Your task to perform on an android device: open a bookmark in the chrome app Image 0: 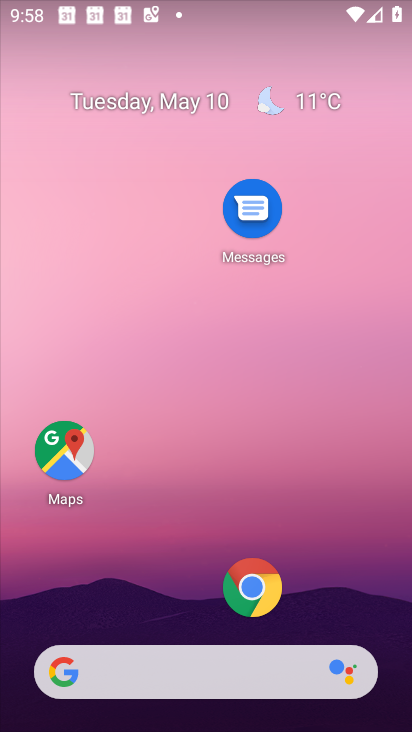
Step 0: click (255, 592)
Your task to perform on an android device: open a bookmark in the chrome app Image 1: 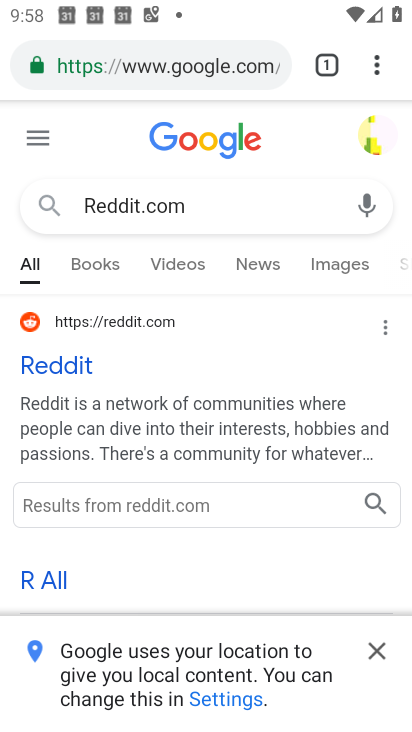
Step 1: click (385, 69)
Your task to perform on an android device: open a bookmark in the chrome app Image 2: 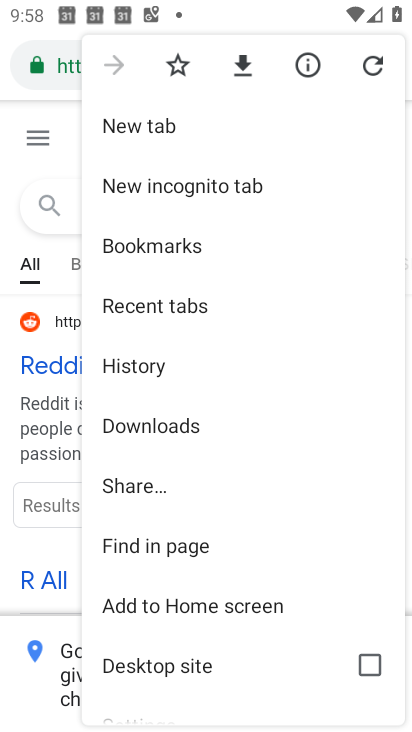
Step 2: click (169, 243)
Your task to perform on an android device: open a bookmark in the chrome app Image 3: 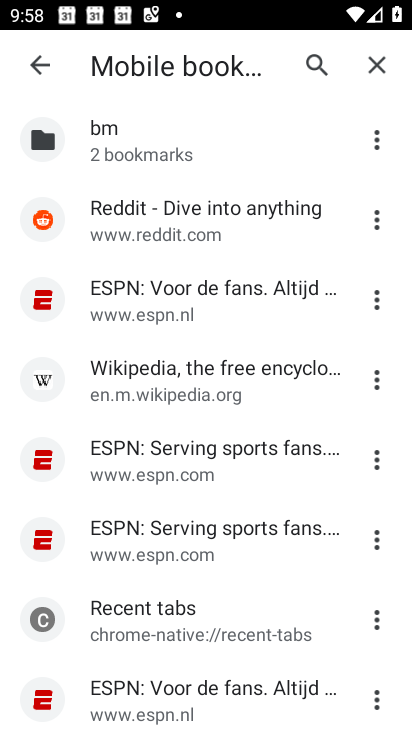
Step 3: click (151, 690)
Your task to perform on an android device: open a bookmark in the chrome app Image 4: 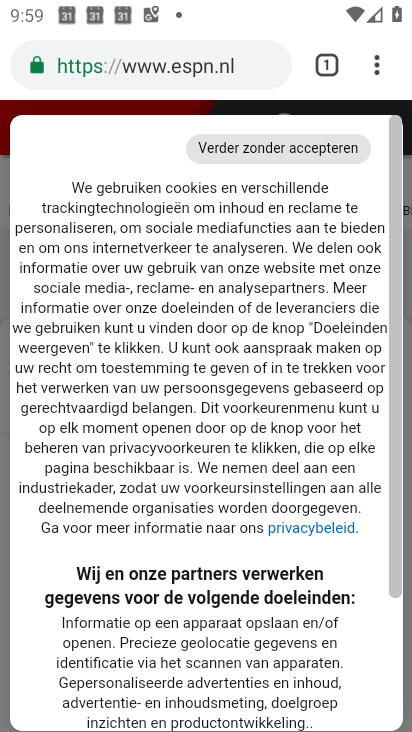
Step 4: task complete